Your task to perform on an android device: delete a single message in the gmail app Image 0: 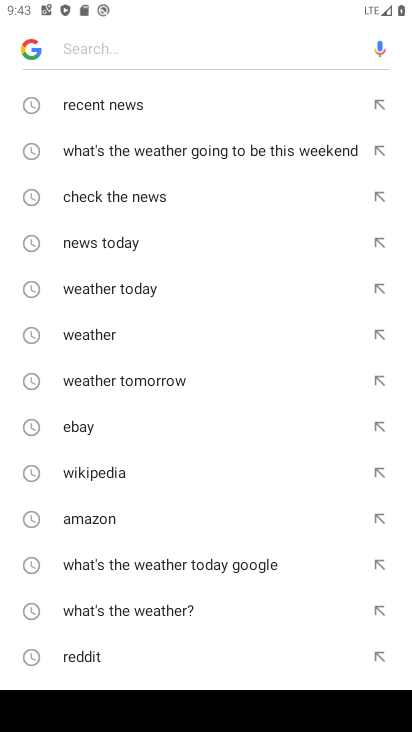
Step 0: press home button
Your task to perform on an android device: delete a single message in the gmail app Image 1: 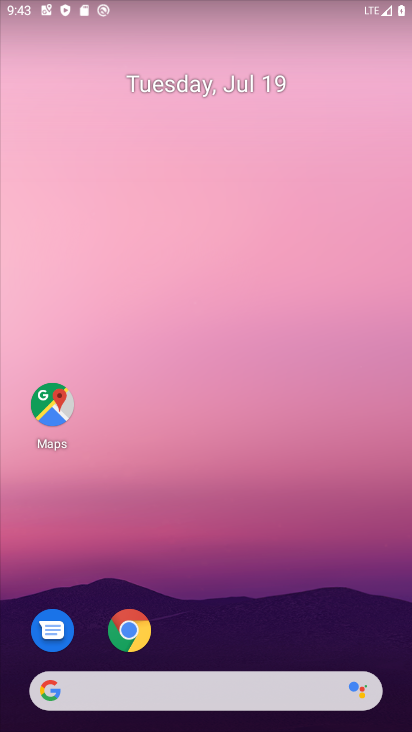
Step 1: drag from (208, 631) to (201, 153)
Your task to perform on an android device: delete a single message in the gmail app Image 2: 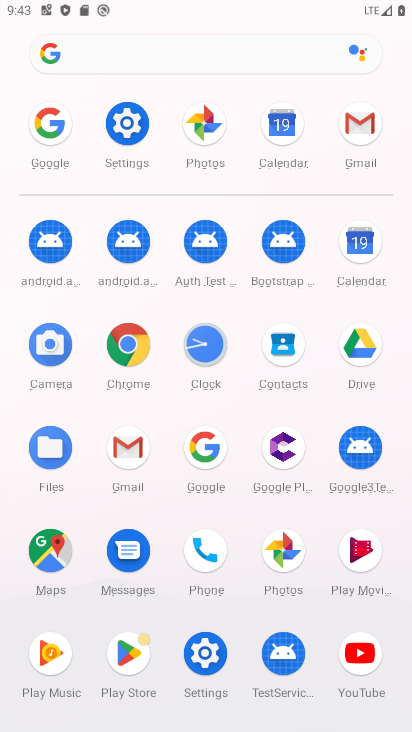
Step 2: click (358, 125)
Your task to perform on an android device: delete a single message in the gmail app Image 3: 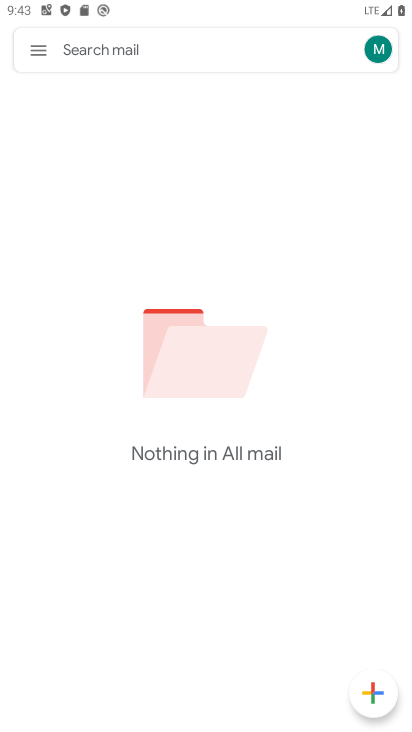
Step 3: task complete